Your task to perform on an android device: turn notification dots on Image 0: 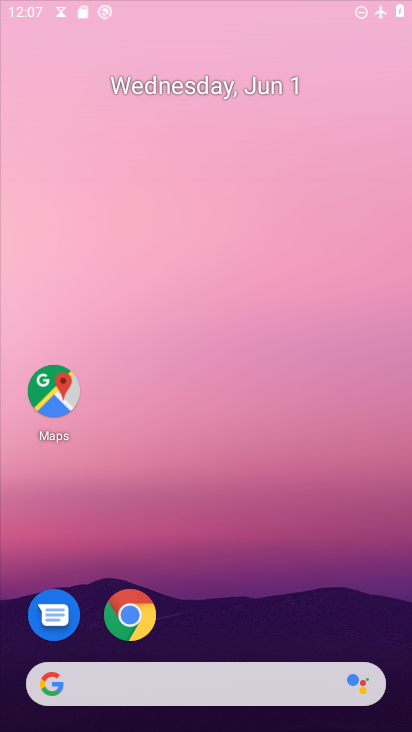
Step 0: drag from (293, 619) to (333, 21)
Your task to perform on an android device: turn notification dots on Image 1: 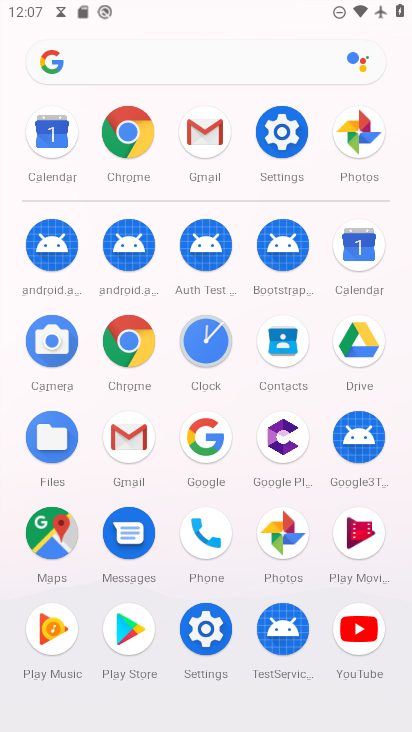
Step 1: click (118, 355)
Your task to perform on an android device: turn notification dots on Image 2: 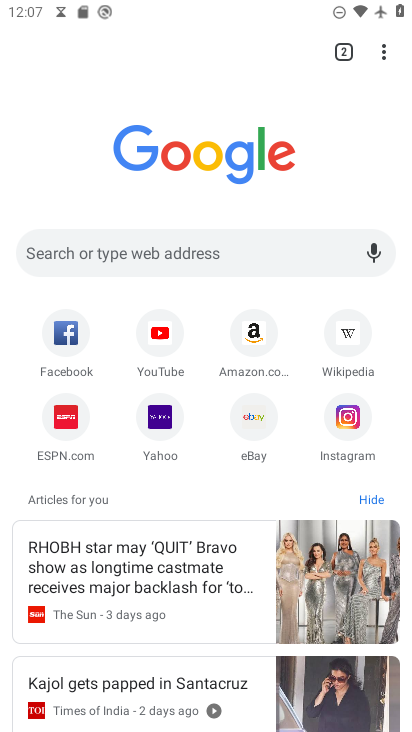
Step 2: drag from (383, 47) to (252, 80)
Your task to perform on an android device: turn notification dots on Image 3: 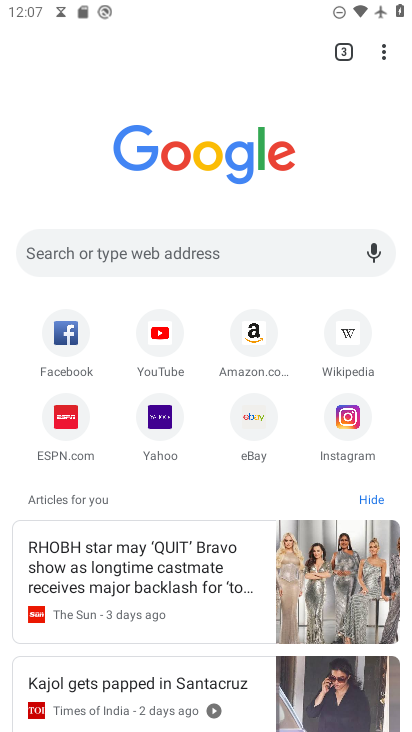
Step 3: click (152, 431)
Your task to perform on an android device: turn notification dots on Image 4: 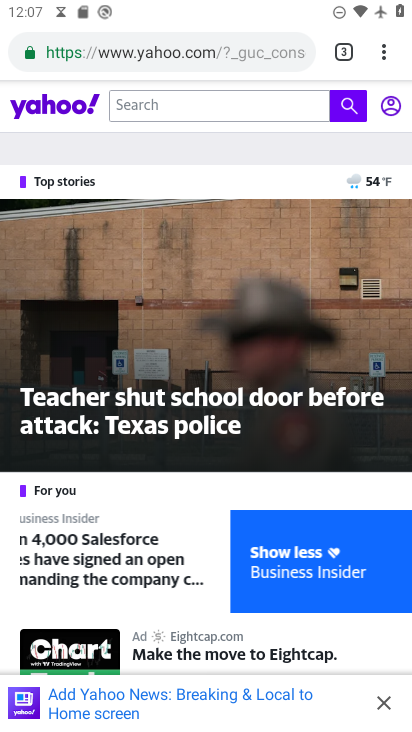
Step 4: task complete